Your task to perform on an android device: toggle improve location accuracy Image 0: 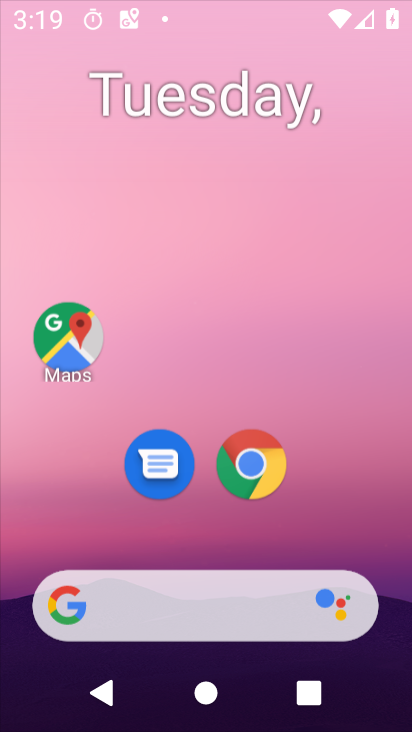
Step 0: drag from (364, 544) to (343, 248)
Your task to perform on an android device: toggle improve location accuracy Image 1: 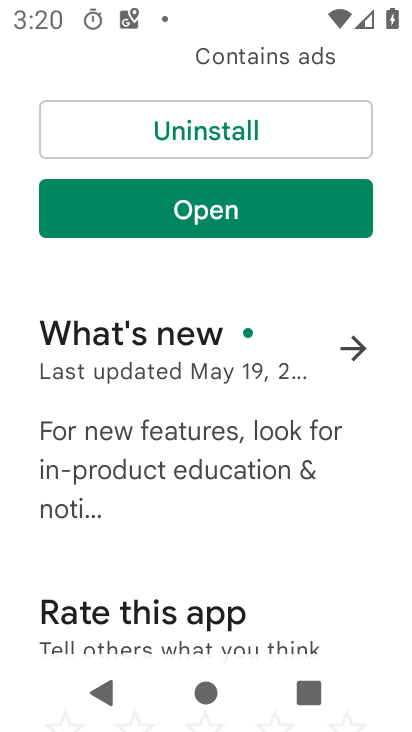
Step 1: press home button
Your task to perform on an android device: toggle improve location accuracy Image 2: 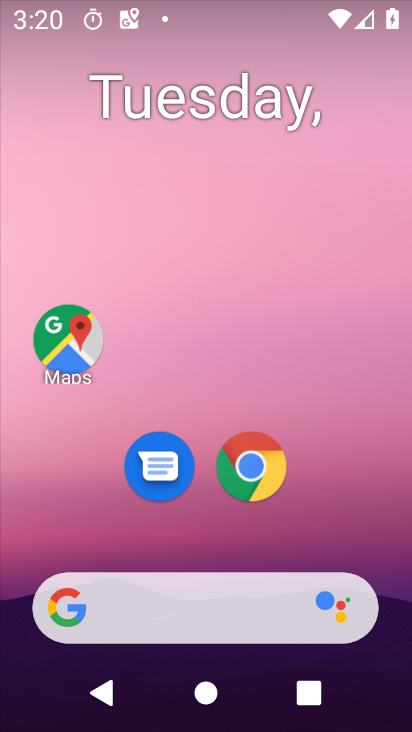
Step 2: drag from (354, 513) to (335, 137)
Your task to perform on an android device: toggle improve location accuracy Image 3: 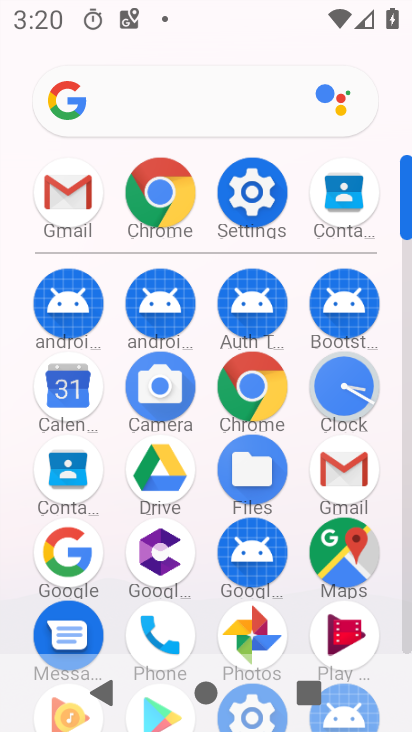
Step 3: click (258, 208)
Your task to perform on an android device: toggle improve location accuracy Image 4: 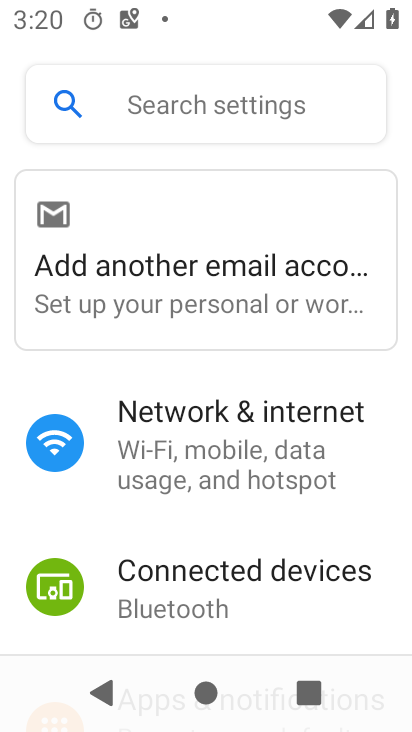
Step 4: drag from (187, 518) to (214, 339)
Your task to perform on an android device: toggle improve location accuracy Image 5: 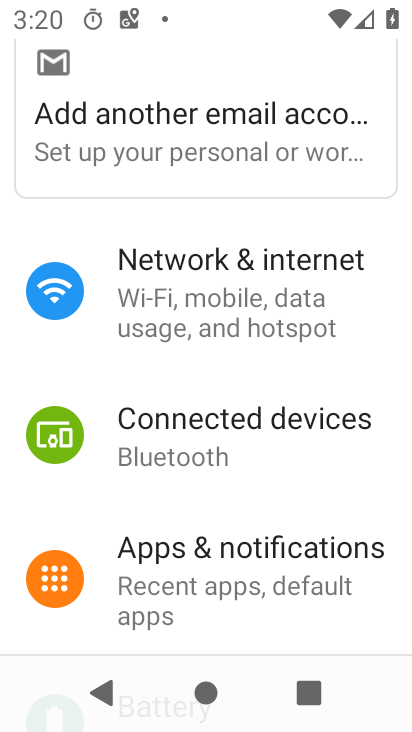
Step 5: drag from (234, 513) to (248, 334)
Your task to perform on an android device: toggle improve location accuracy Image 6: 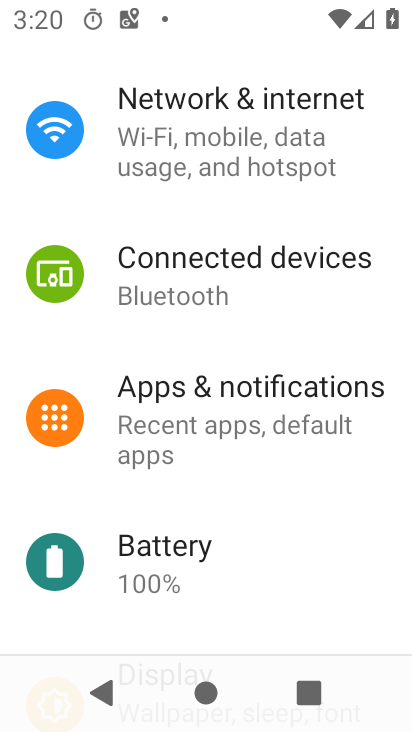
Step 6: drag from (272, 552) to (291, 359)
Your task to perform on an android device: toggle improve location accuracy Image 7: 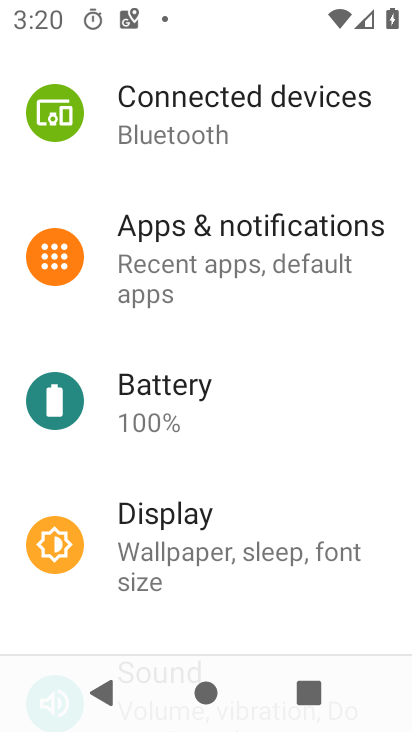
Step 7: drag from (284, 494) to (300, 319)
Your task to perform on an android device: toggle improve location accuracy Image 8: 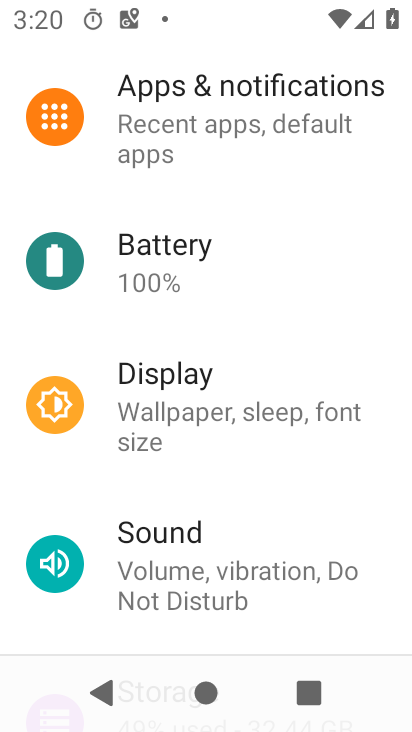
Step 8: drag from (328, 454) to (345, 270)
Your task to perform on an android device: toggle improve location accuracy Image 9: 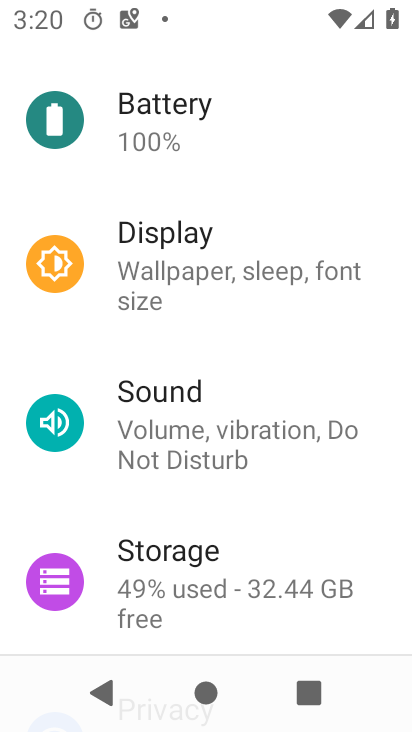
Step 9: drag from (354, 503) to (353, 297)
Your task to perform on an android device: toggle improve location accuracy Image 10: 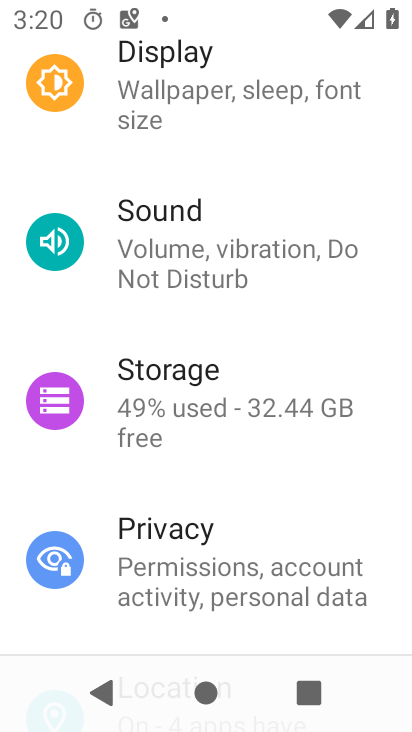
Step 10: drag from (340, 513) to (345, 332)
Your task to perform on an android device: toggle improve location accuracy Image 11: 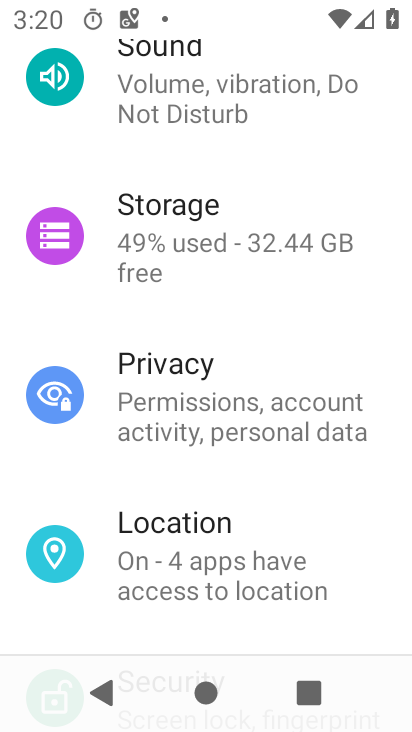
Step 11: drag from (346, 520) to (350, 366)
Your task to perform on an android device: toggle improve location accuracy Image 12: 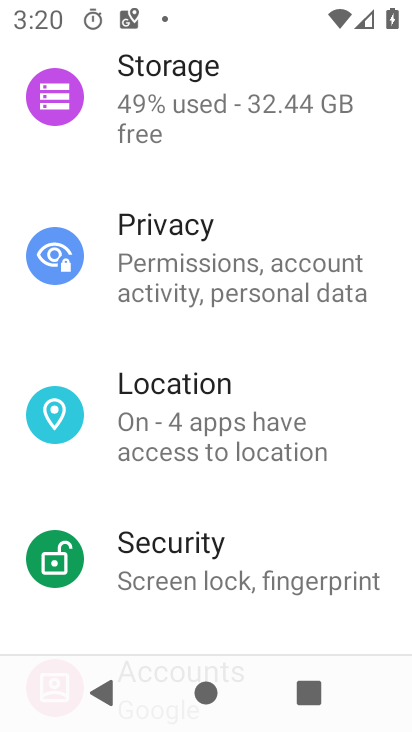
Step 12: click (319, 445)
Your task to perform on an android device: toggle improve location accuracy Image 13: 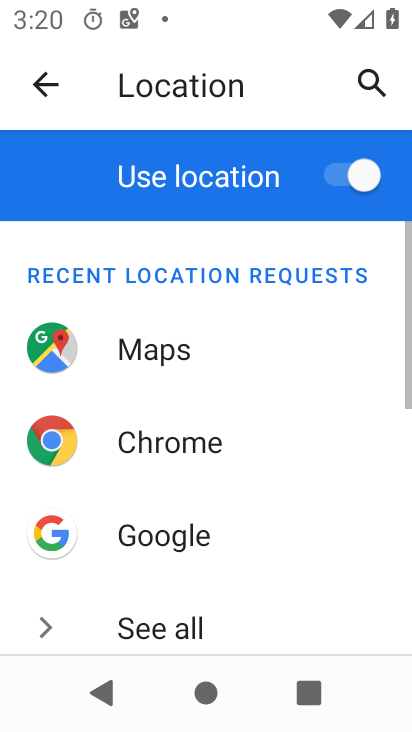
Step 13: drag from (312, 512) to (315, 361)
Your task to perform on an android device: toggle improve location accuracy Image 14: 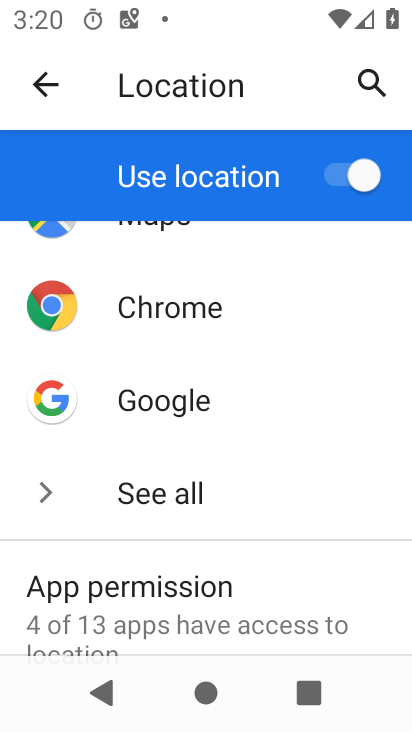
Step 14: drag from (322, 556) to (335, 348)
Your task to perform on an android device: toggle improve location accuracy Image 15: 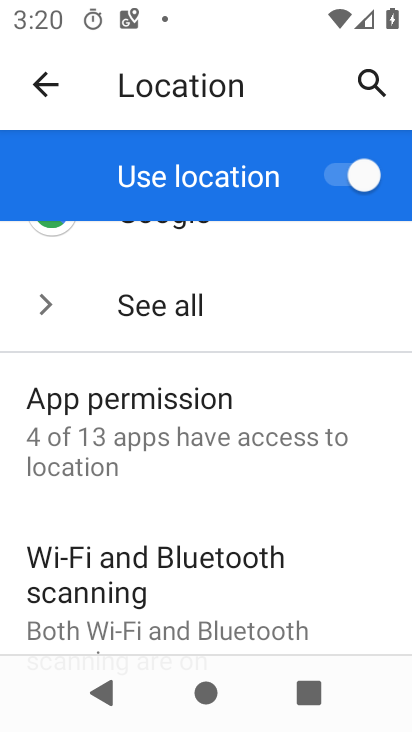
Step 15: drag from (322, 570) to (325, 363)
Your task to perform on an android device: toggle improve location accuracy Image 16: 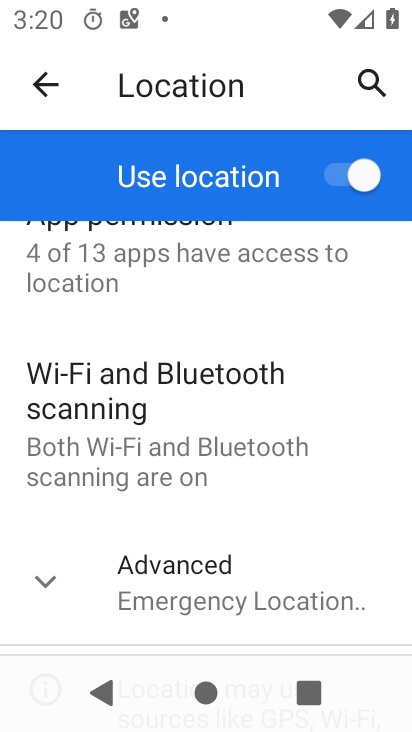
Step 16: click (313, 608)
Your task to perform on an android device: toggle improve location accuracy Image 17: 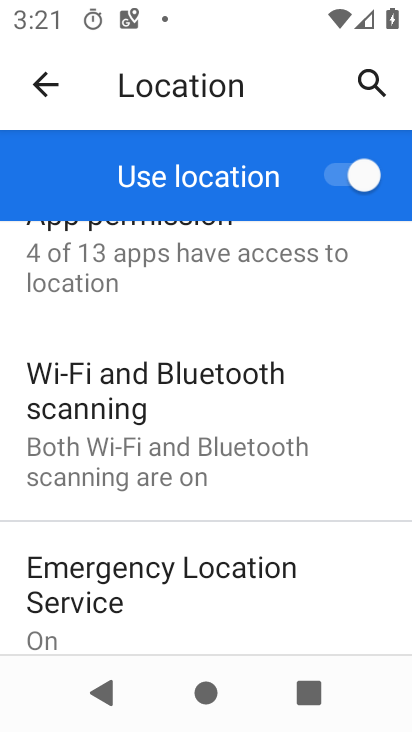
Step 17: drag from (328, 548) to (338, 358)
Your task to perform on an android device: toggle improve location accuracy Image 18: 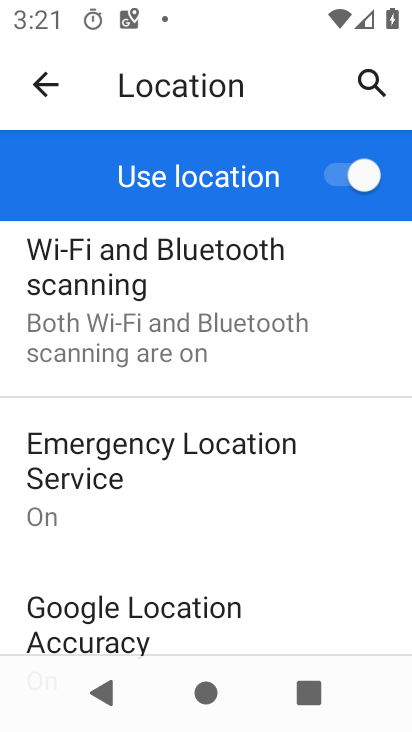
Step 18: drag from (339, 555) to (319, 353)
Your task to perform on an android device: toggle improve location accuracy Image 19: 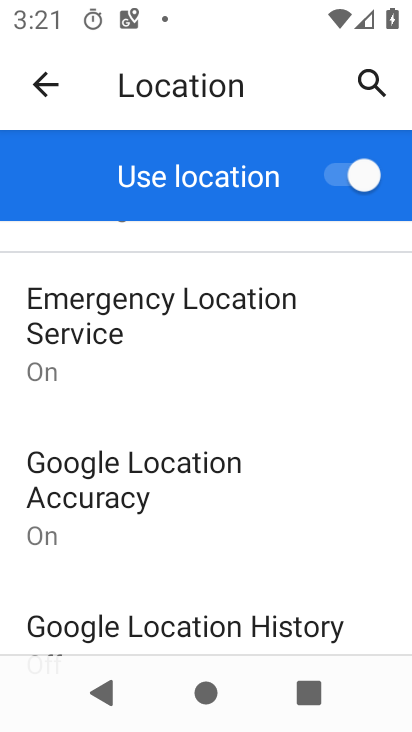
Step 19: drag from (277, 511) to (257, 371)
Your task to perform on an android device: toggle improve location accuracy Image 20: 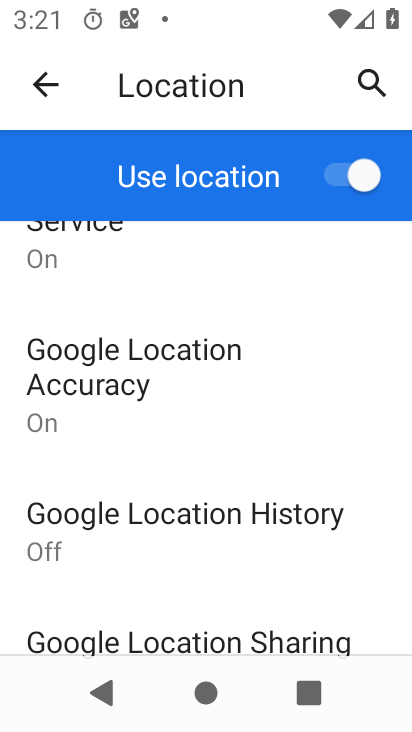
Step 20: drag from (238, 539) to (230, 391)
Your task to perform on an android device: toggle improve location accuracy Image 21: 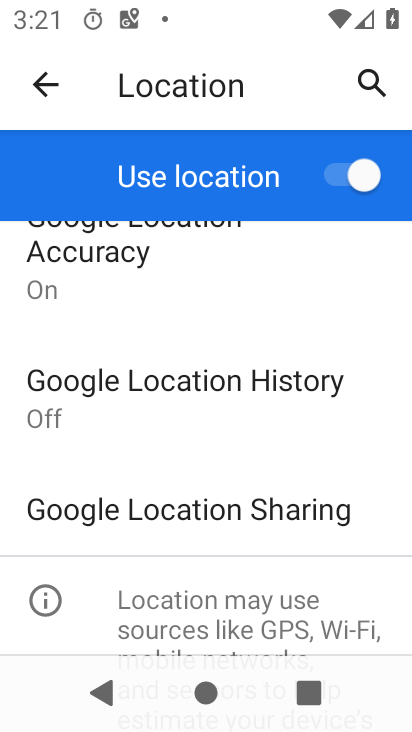
Step 21: click (148, 267)
Your task to perform on an android device: toggle improve location accuracy Image 22: 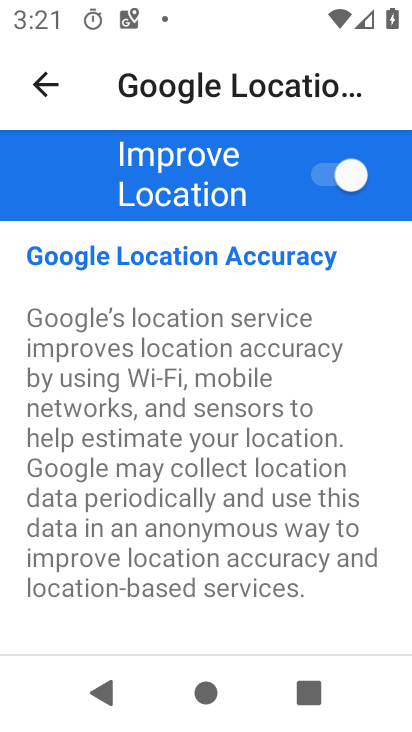
Step 22: task complete